Your task to perform on an android device: Check the weather Image 0: 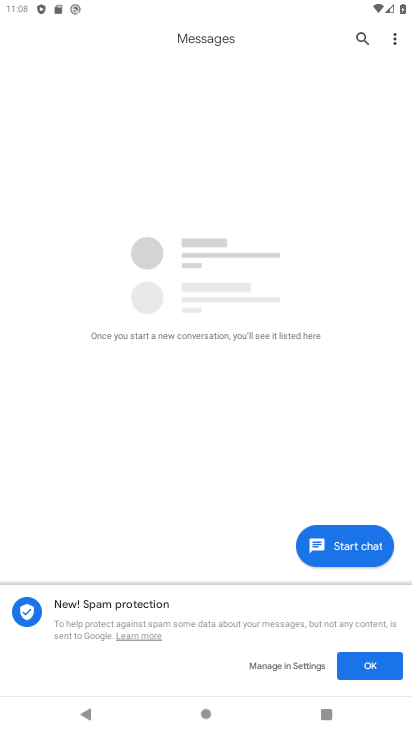
Step 0: press home button
Your task to perform on an android device: Check the weather Image 1: 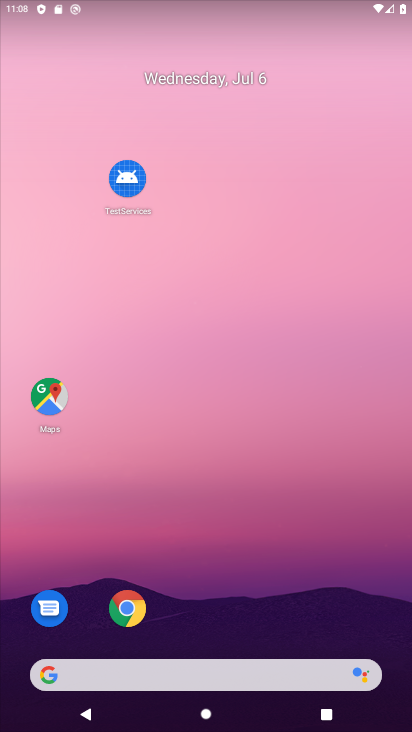
Step 1: drag from (0, 189) to (388, 327)
Your task to perform on an android device: Check the weather Image 2: 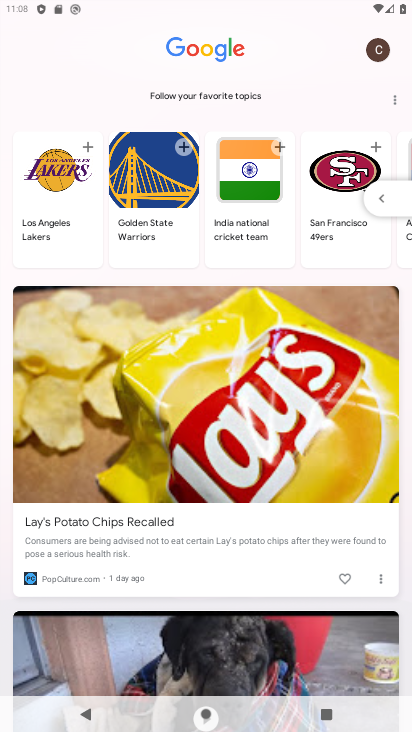
Step 2: drag from (216, 89) to (299, 673)
Your task to perform on an android device: Check the weather Image 3: 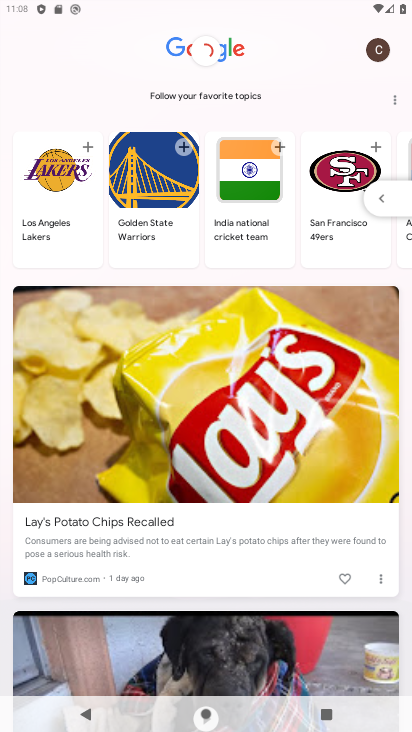
Step 3: click (257, 614)
Your task to perform on an android device: Check the weather Image 4: 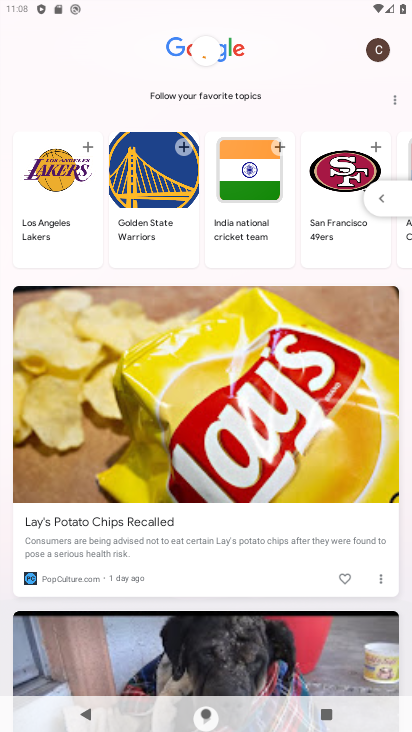
Step 4: click (298, 540)
Your task to perform on an android device: Check the weather Image 5: 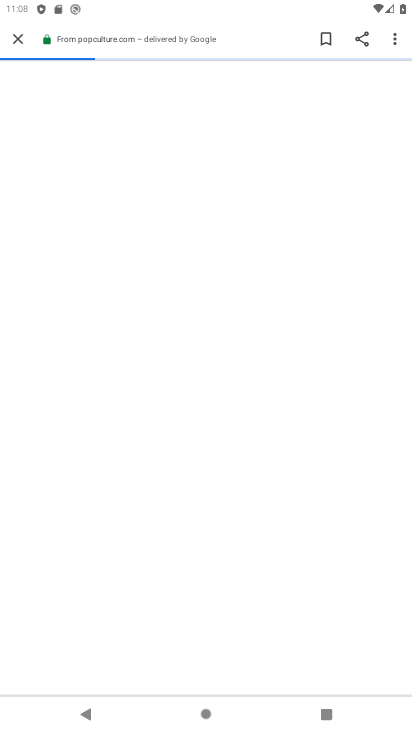
Step 5: drag from (214, 57) to (271, 508)
Your task to perform on an android device: Check the weather Image 6: 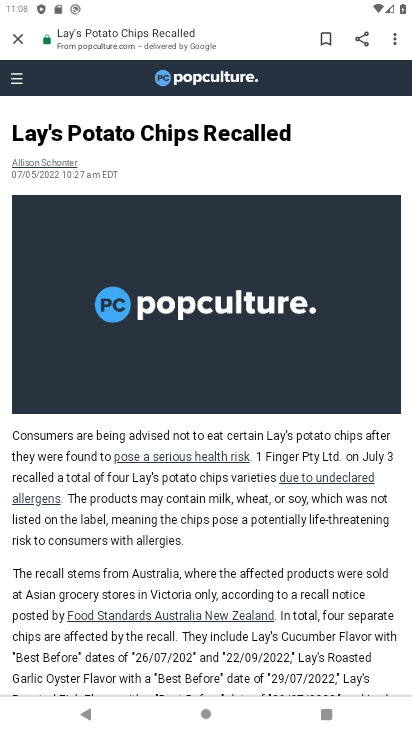
Step 6: click (100, 37)
Your task to perform on an android device: Check the weather Image 7: 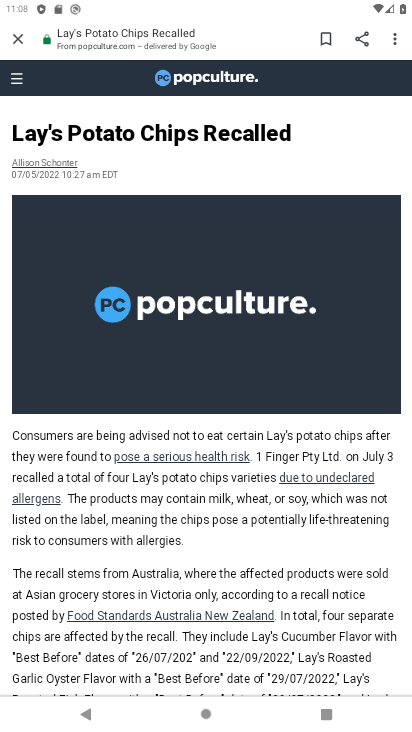
Step 7: click (102, 39)
Your task to perform on an android device: Check the weather Image 8: 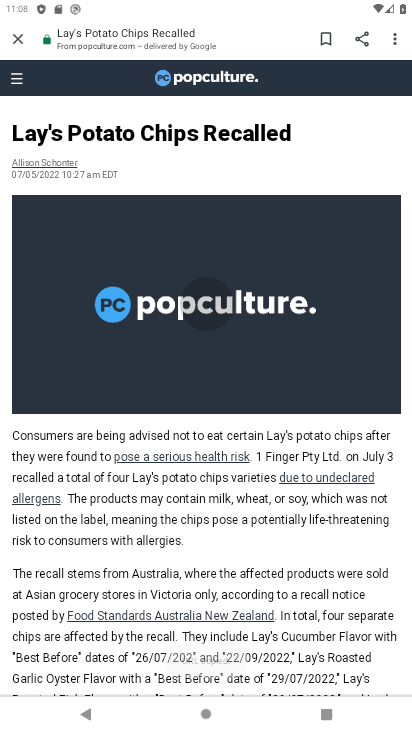
Step 8: click (104, 42)
Your task to perform on an android device: Check the weather Image 9: 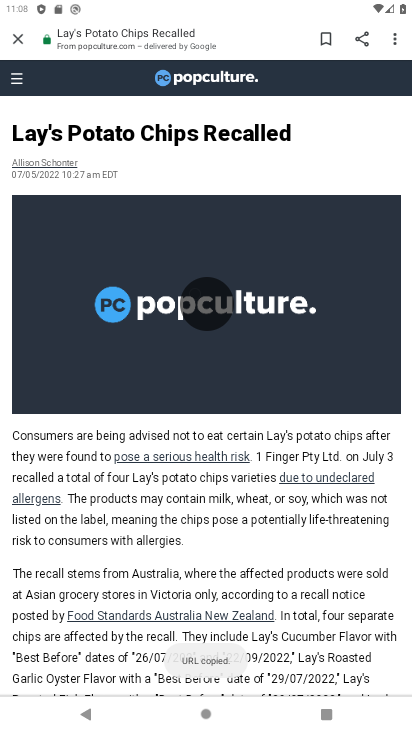
Step 9: click (122, 31)
Your task to perform on an android device: Check the weather Image 10: 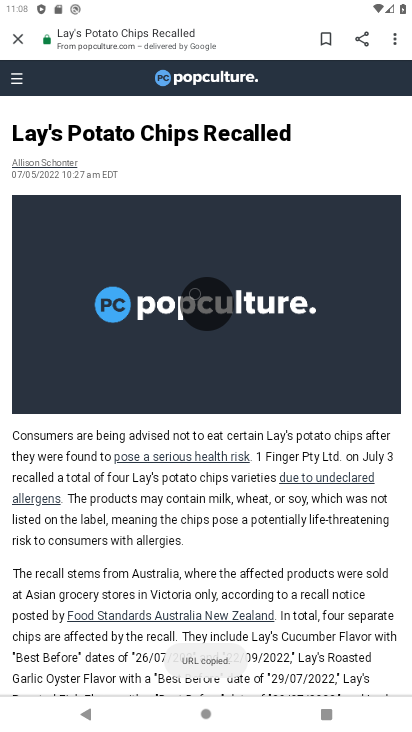
Step 10: click (13, 36)
Your task to perform on an android device: Check the weather Image 11: 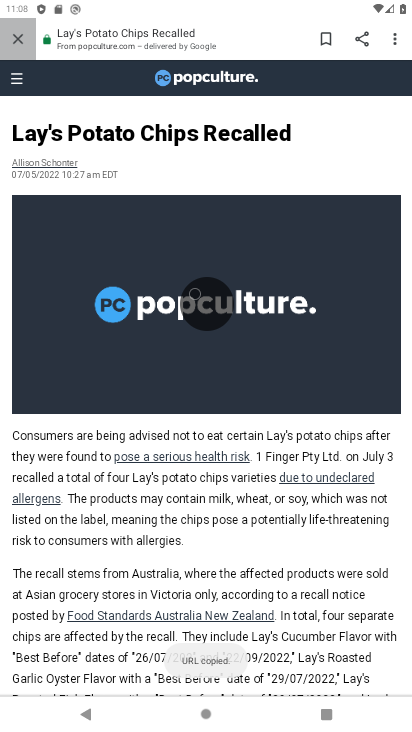
Step 11: click (13, 36)
Your task to perform on an android device: Check the weather Image 12: 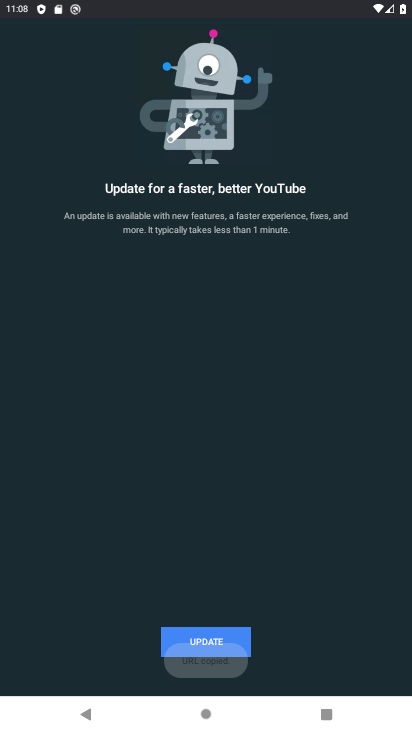
Step 12: click (11, 42)
Your task to perform on an android device: Check the weather Image 13: 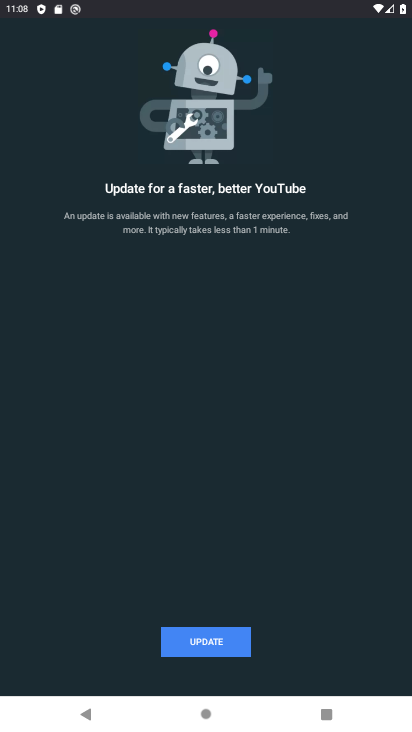
Step 13: press back button
Your task to perform on an android device: Check the weather Image 14: 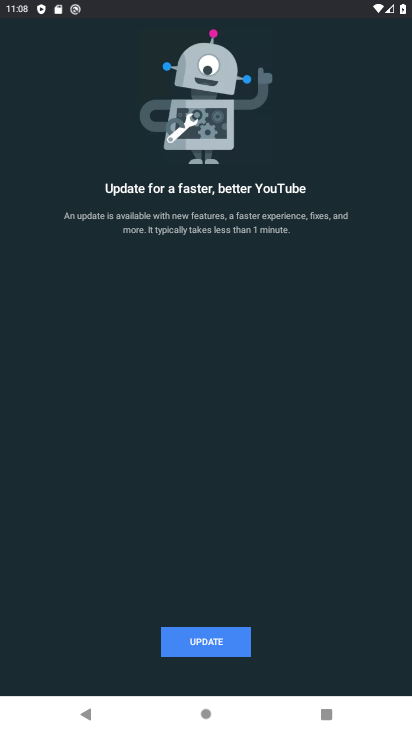
Step 14: press back button
Your task to perform on an android device: Check the weather Image 15: 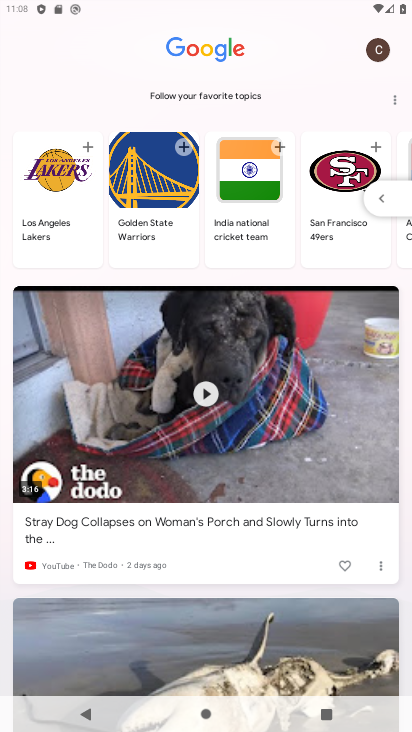
Step 15: press back button
Your task to perform on an android device: Check the weather Image 16: 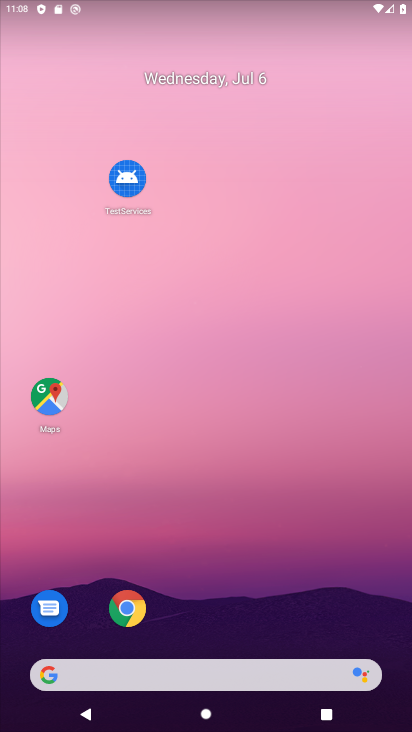
Step 16: press back button
Your task to perform on an android device: Check the weather Image 17: 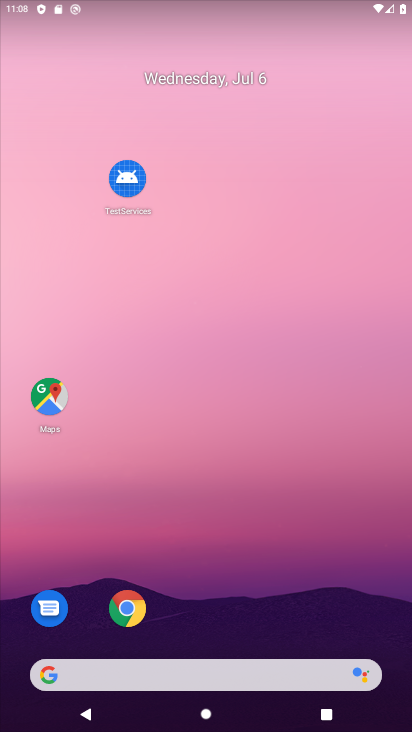
Step 17: click (121, 604)
Your task to perform on an android device: Check the weather Image 18: 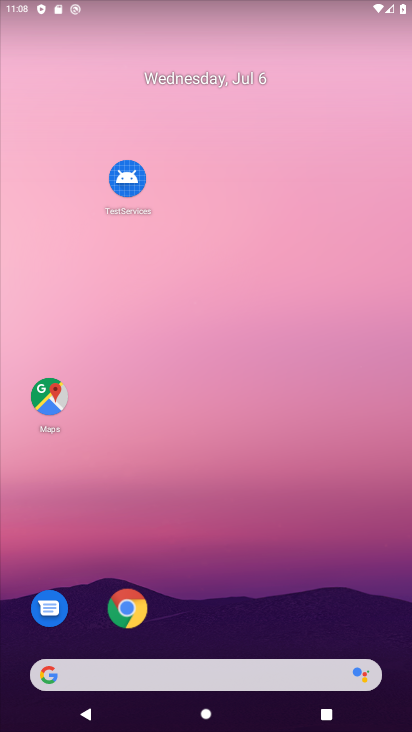
Step 18: click (121, 605)
Your task to perform on an android device: Check the weather Image 19: 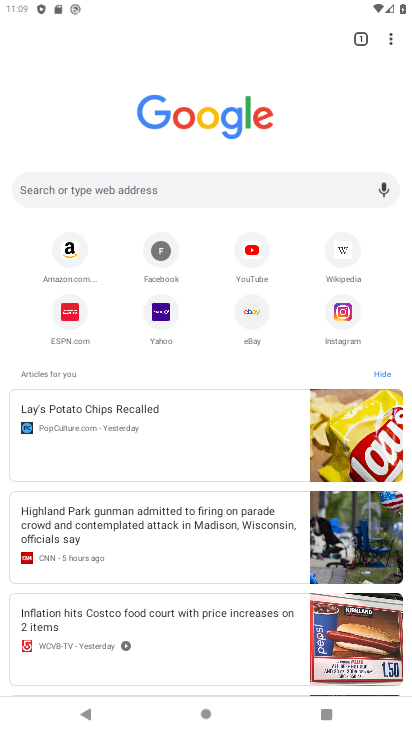
Step 19: click (59, 197)
Your task to perform on an android device: Check the weather Image 20: 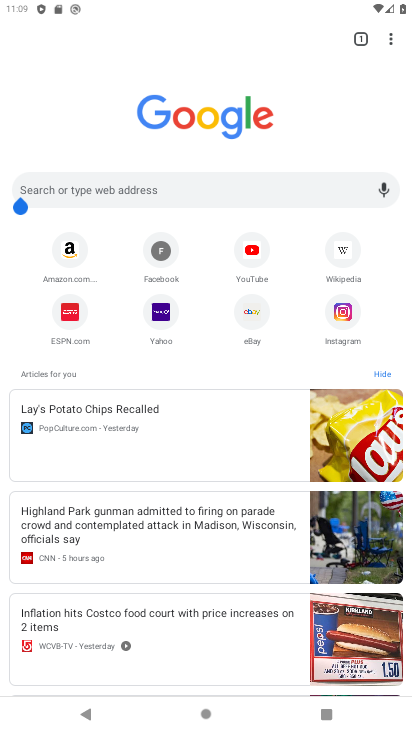
Step 20: click (64, 185)
Your task to perform on an android device: Check the weather Image 21: 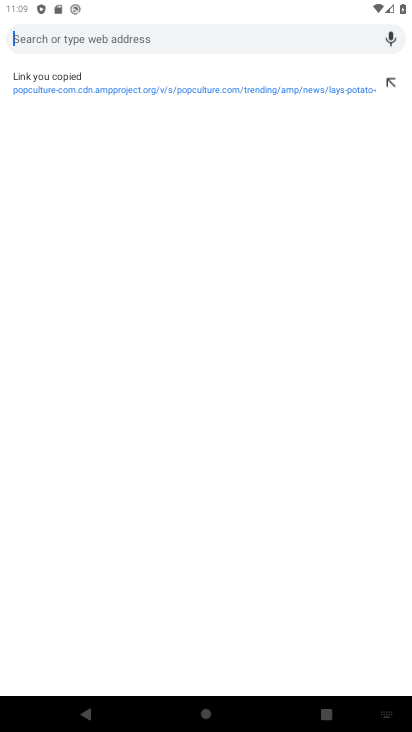
Step 21: type "weather"
Your task to perform on an android device: Check the weather Image 22: 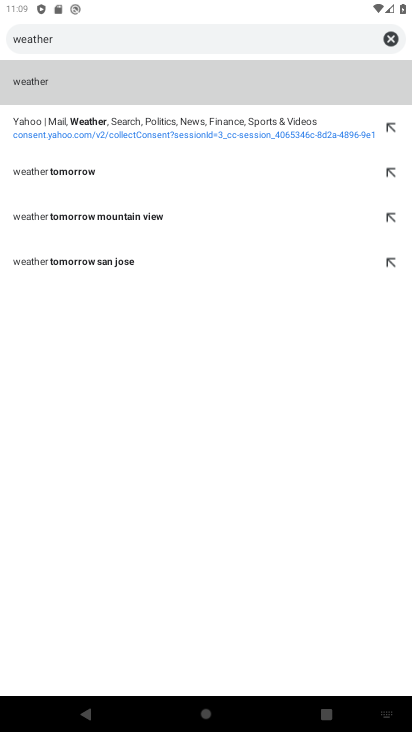
Step 22: click (78, 215)
Your task to perform on an android device: Check the weather Image 23: 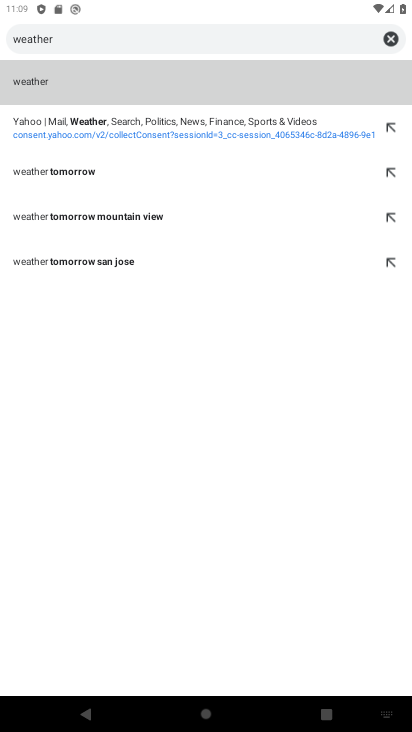
Step 23: click (79, 215)
Your task to perform on an android device: Check the weather Image 24: 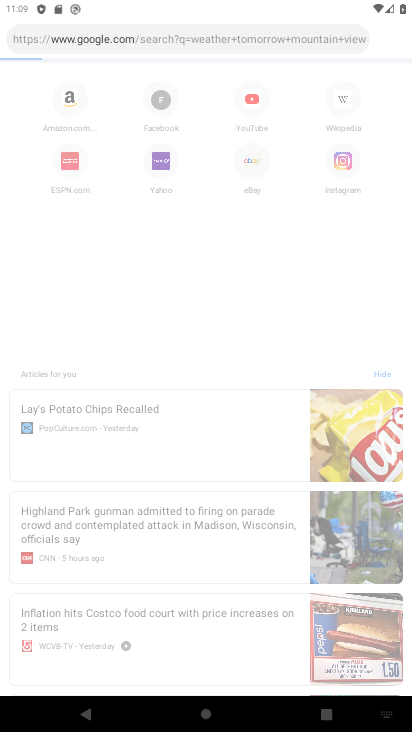
Step 24: click (80, 214)
Your task to perform on an android device: Check the weather Image 25: 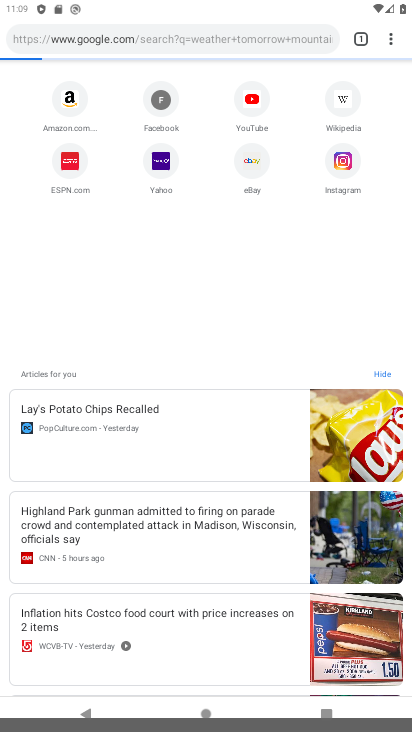
Step 25: click (80, 214)
Your task to perform on an android device: Check the weather Image 26: 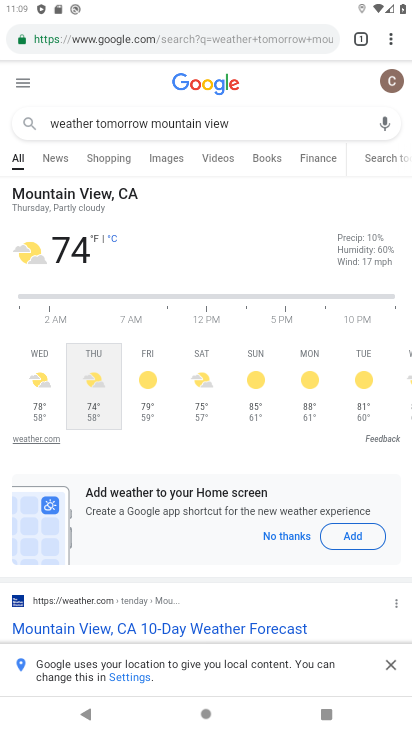
Step 26: task complete